Your task to perform on an android device: turn on priority inbox in the gmail app Image 0: 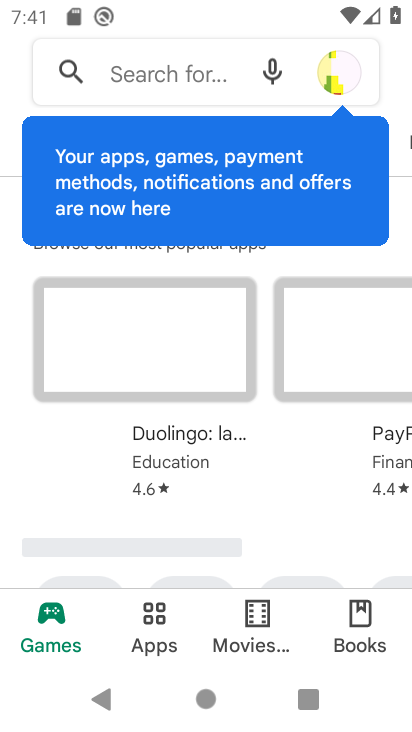
Step 0: press back button
Your task to perform on an android device: turn on priority inbox in the gmail app Image 1: 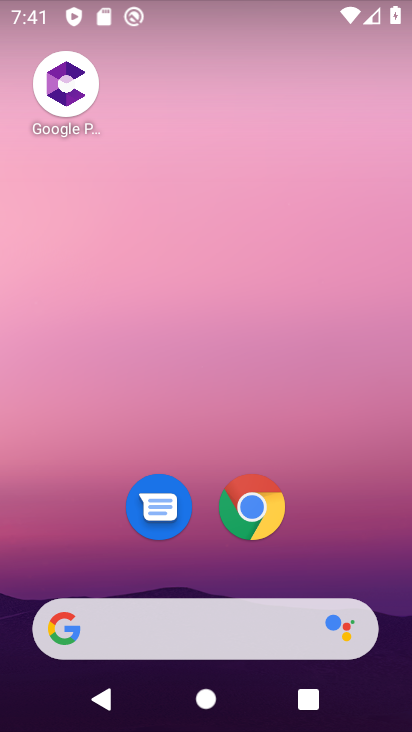
Step 1: drag from (313, 508) to (303, 19)
Your task to perform on an android device: turn on priority inbox in the gmail app Image 2: 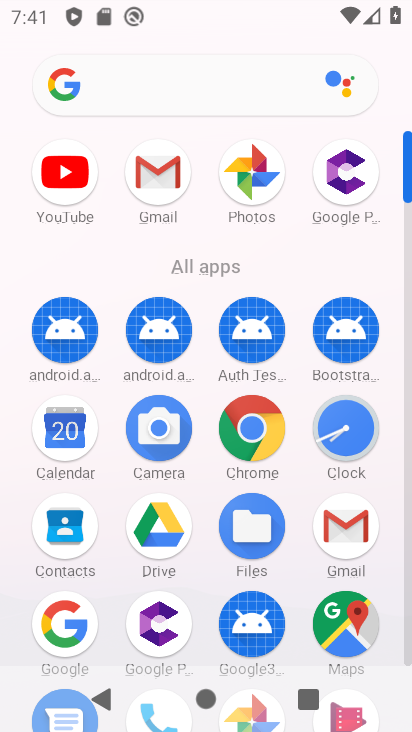
Step 2: click (158, 164)
Your task to perform on an android device: turn on priority inbox in the gmail app Image 3: 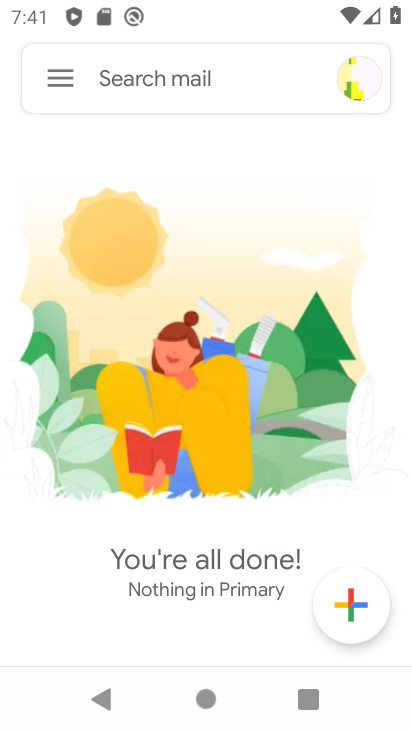
Step 3: click (56, 82)
Your task to perform on an android device: turn on priority inbox in the gmail app Image 4: 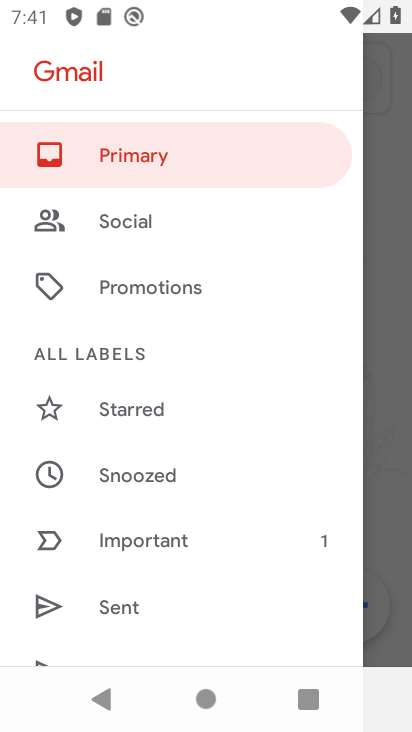
Step 4: drag from (232, 521) to (259, 133)
Your task to perform on an android device: turn on priority inbox in the gmail app Image 5: 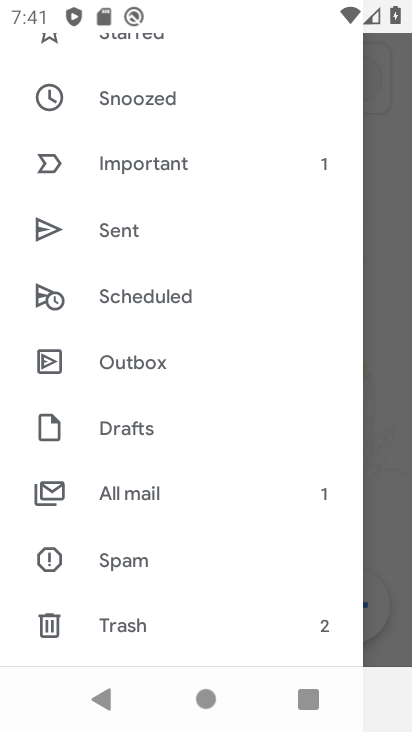
Step 5: drag from (210, 565) to (286, 45)
Your task to perform on an android device: turn on priority inbox in the gmail app Image 6: 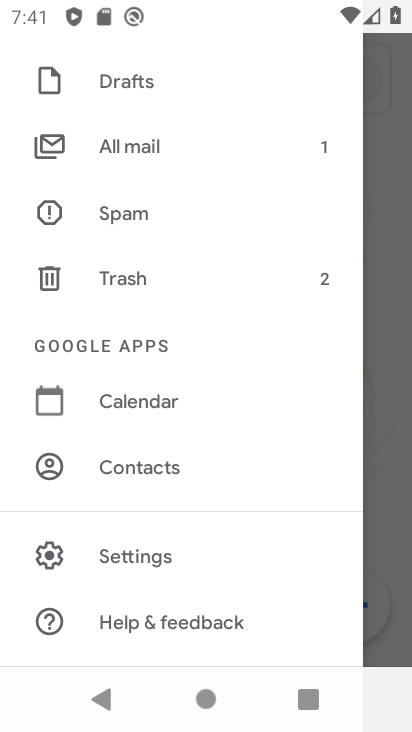
Step 6: click (158, 565)
Your task to perform on an android device: turn on priority inbox in the gmail app Image 7: 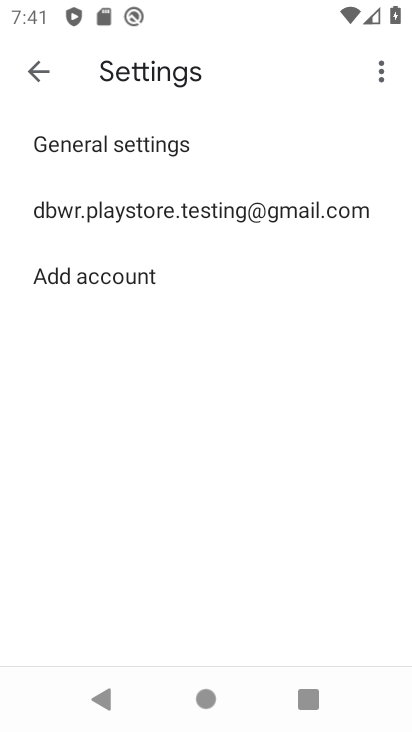
Step 7: click (167, 206)
Your task to perform on an android device: turn on priority inbox in the gmail app Image 8: 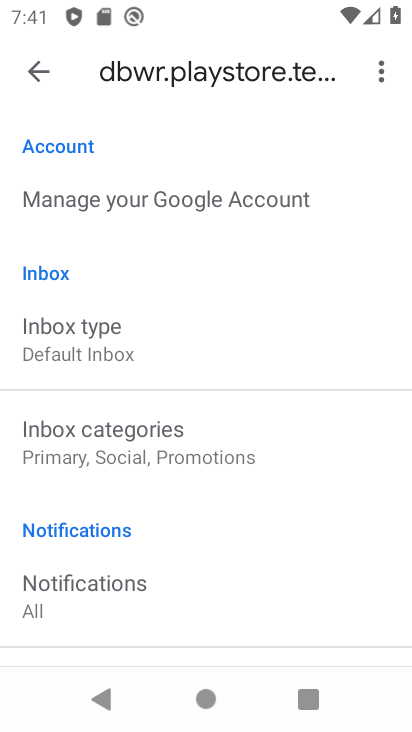
Step 8: drag from (259, 489) to (274, 140)
Your task to perform on an android device: turn on priority inbox in the gmail app Image 9: 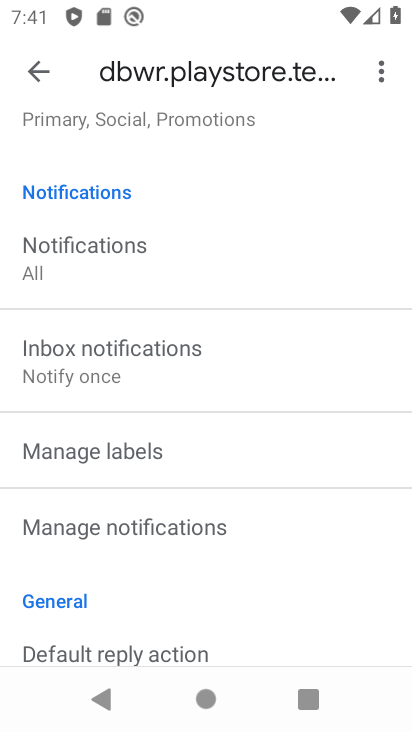
Step 9: drag from (226, 193) to (228, 451)
Your task to perform on an android device: turn on priority inbox in the gmail app Image 10: 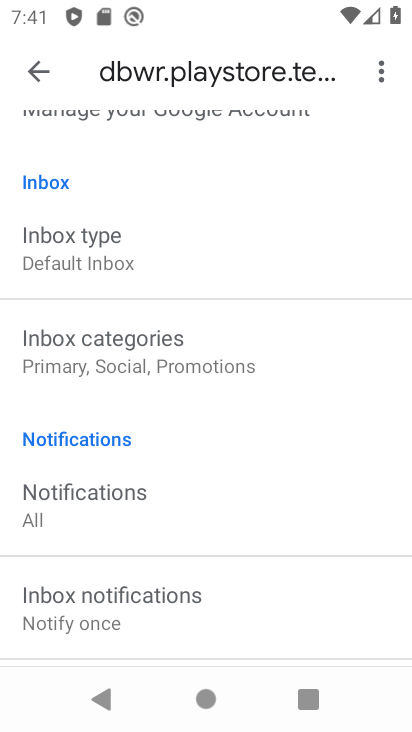
Step 10: click (162, 271)
Your task to perform on an android device: turn on priority inbox in the gmail app Image 11: 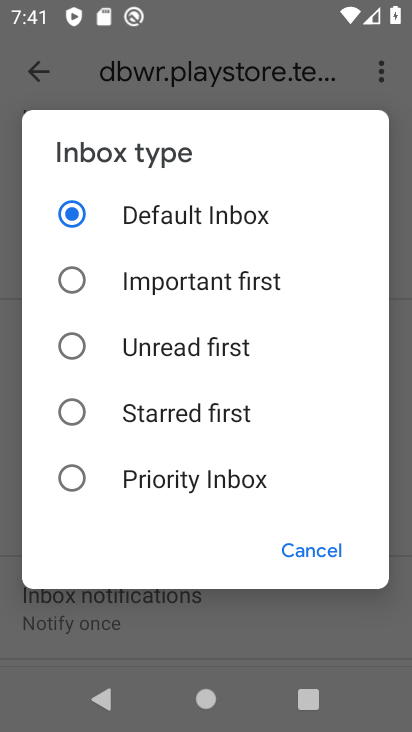
Step 11: click (145, 477)
Your task to perform on an android device: turn on priority inbox in the gmail app Image 12: 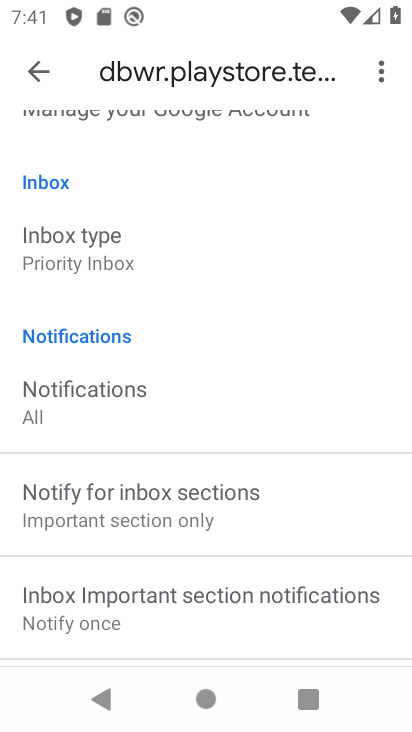
Step 12: task complete